Your task to perform on an android device: Open wifi settings Image 0: 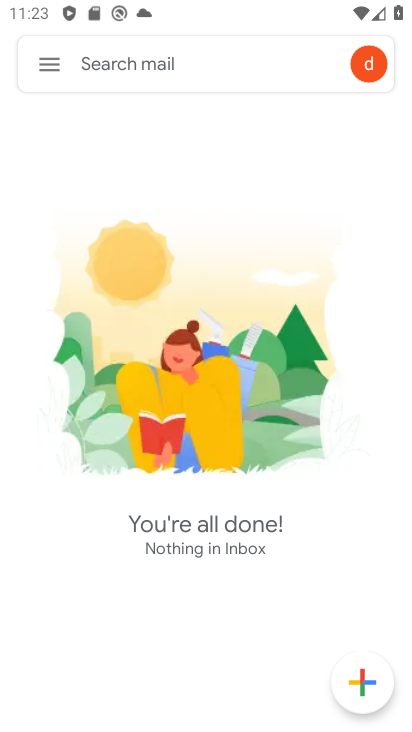
Step 0: press back button
Your task to perform on an android device: Open wifi settings Image 1: 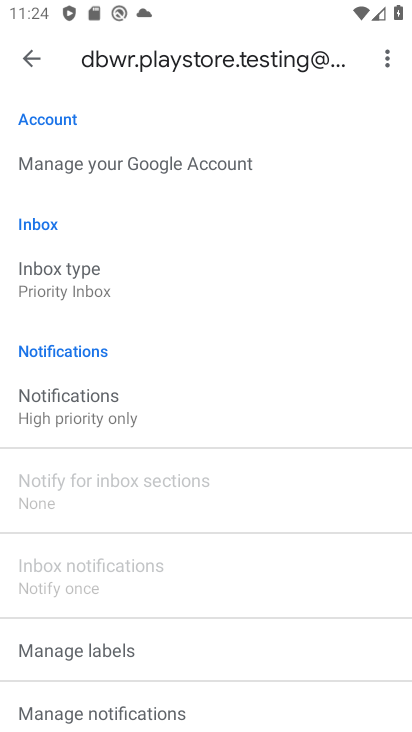
Step 1: click (15, 60)
Your task to perform on an android device: Open wifi settings Image 2: 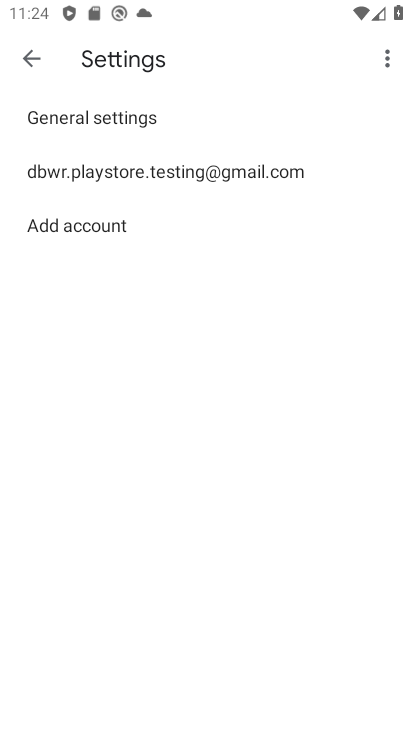
Step 2: click (22, 52)
Your task to perform on an android device: Open wifi settings Image 3: 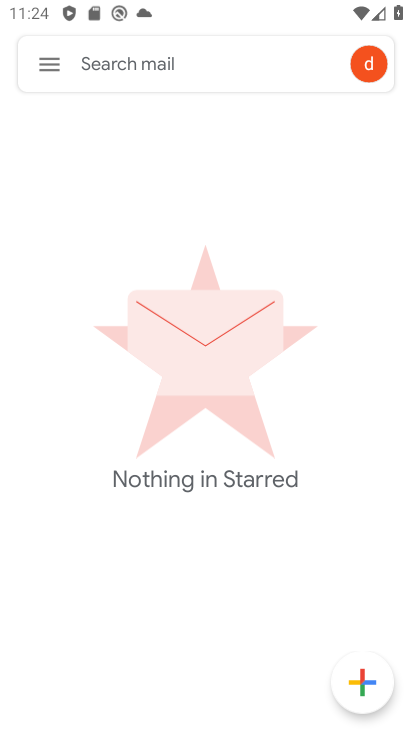
Step 3: press home button
Your task to perform on an android device: Open wifi settings Image 4: 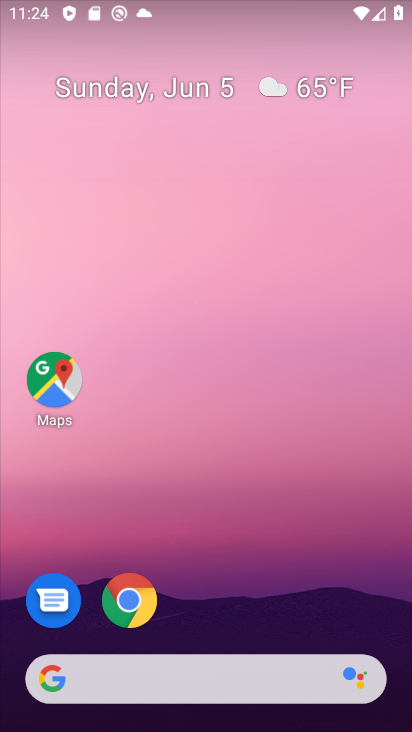
Step 4: drag from (259, 690) to (192, 170)
Your task to perform on an android device: Open wifi settings Image 5: 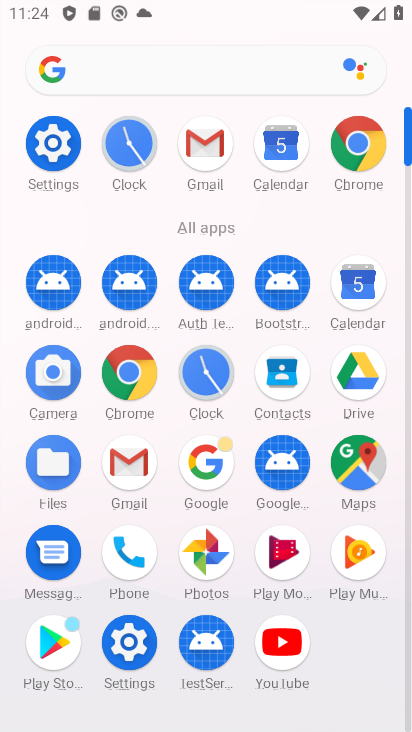
Step 5: click (44, 144)
Your task to perform on an android device: Open wifi settings Image 6: 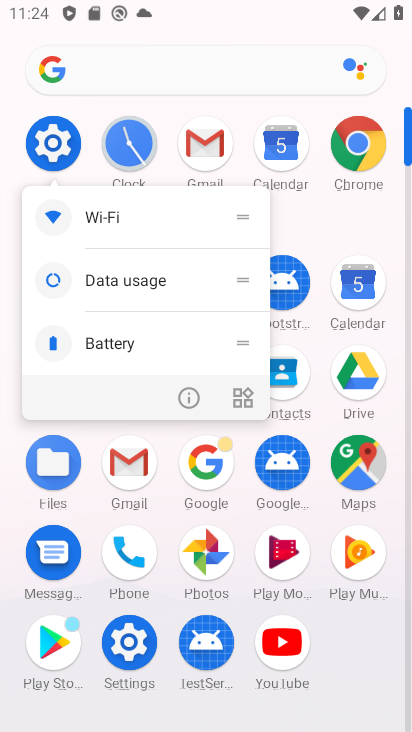
Step 6: click (46, 130)
Your task to perform on an android device: Open wifi settings Image 7: 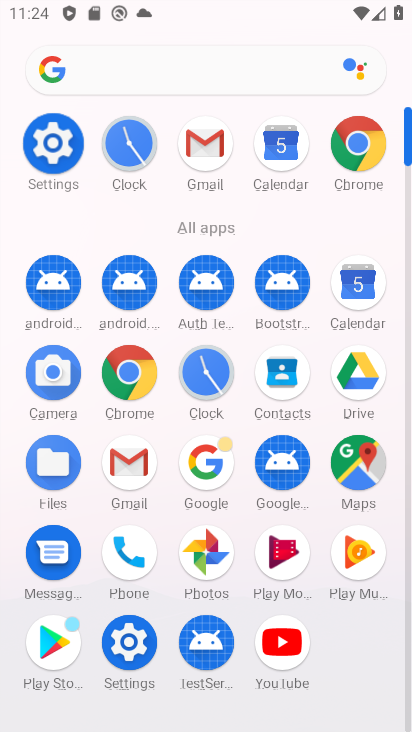
Step 7: click (57, 135)
Your task to perform on an android device: Open wifi settings Image 8: 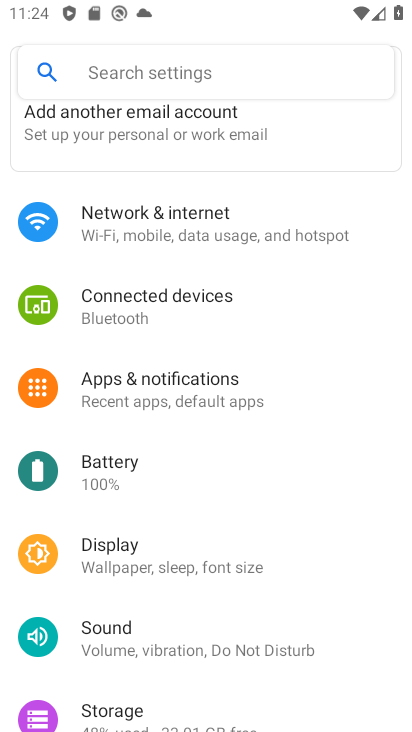
Step 8: drag from (170, 296) to (181, 596)
Your task to perform on an android device: Open wifi settings Image 9: 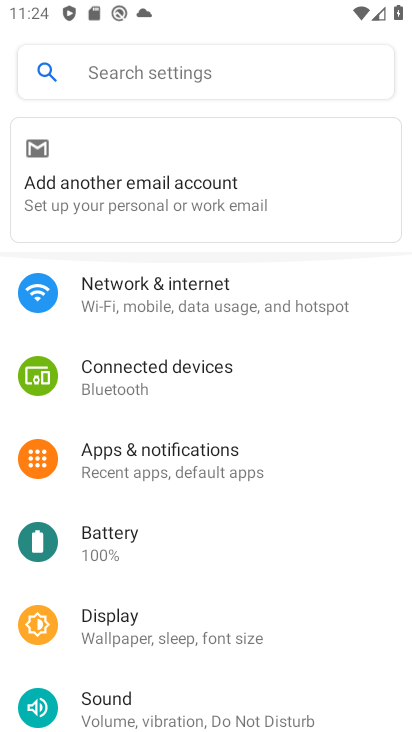
Step 9: drag from (183, 304) to (158, 631)
Your task to perform on an android device: Open wifi settings Image 10: 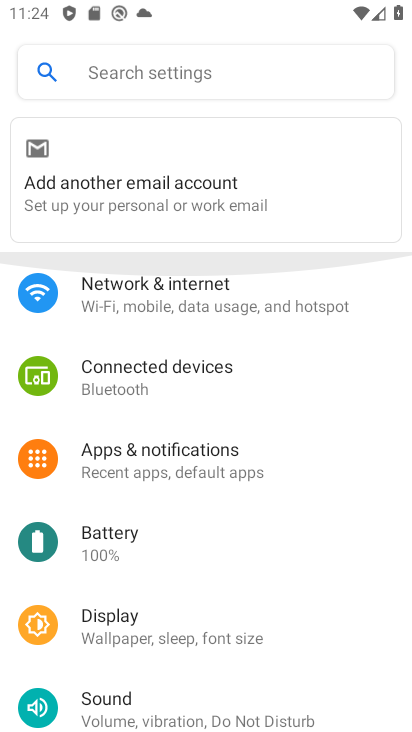
Step 10: drag from (172, 253) to (142, 678)
Your task to perform on an android device: Open wifi settings Image 11: 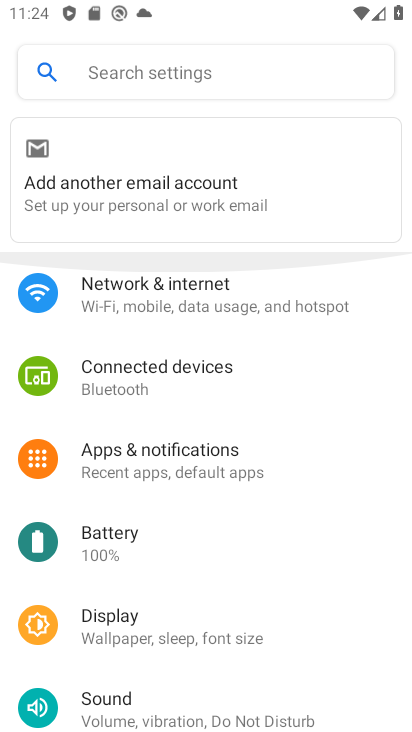
Step 11: drag from (143, 401) to (144, 725)
Your task to perform on an android device: Open wifi settings Image 12: 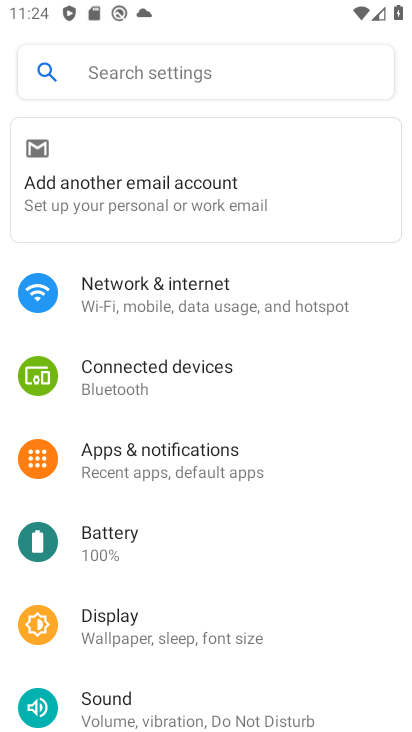
Step 12: click (193, 306)
Your task to perform on an android device: Open wifi settings Image 13: 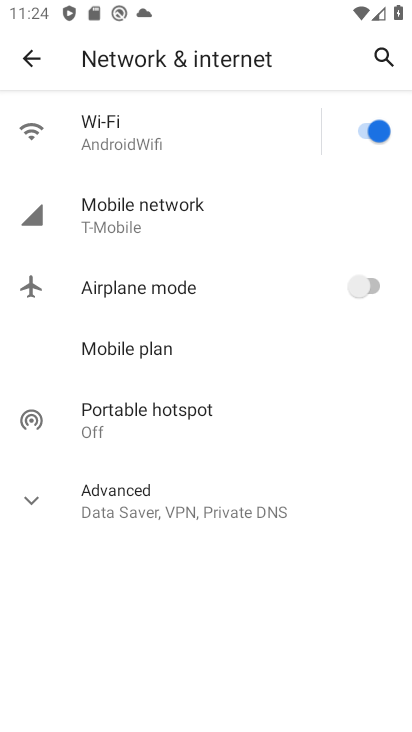
Step 13: task complete